Your task to perform on an android device: Search for sushi restaurants on Maps Image 0: 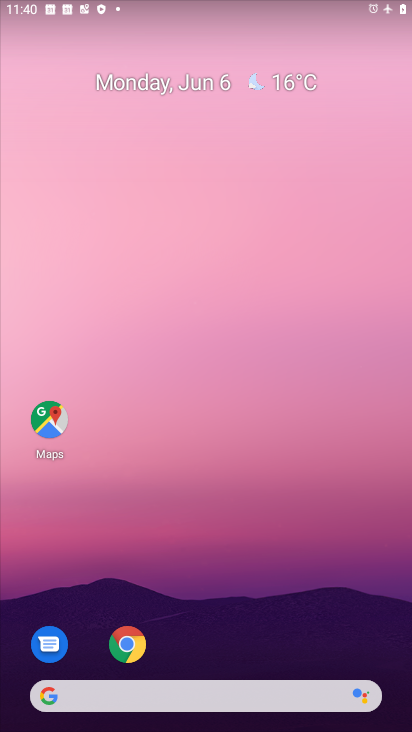
Step 0: drag from (269, 615) to (267, 122)
Your task to perform on an android device: Search for sushi restaurants on Maps Image 1: 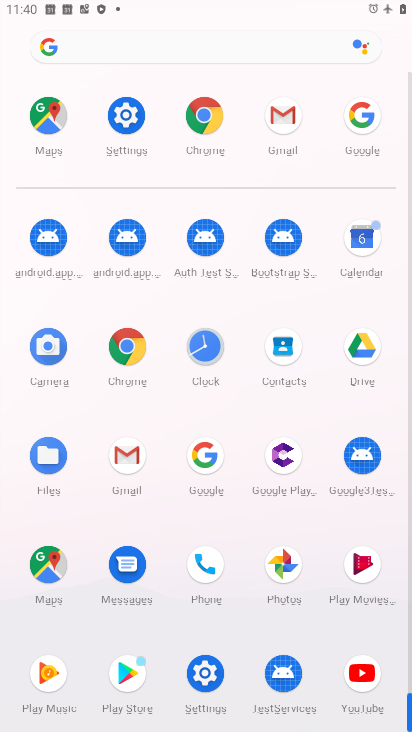
Step 1: click (58, 580)
Your task to perform on an android device: Search for sushi restaurants on Maps Image 2: 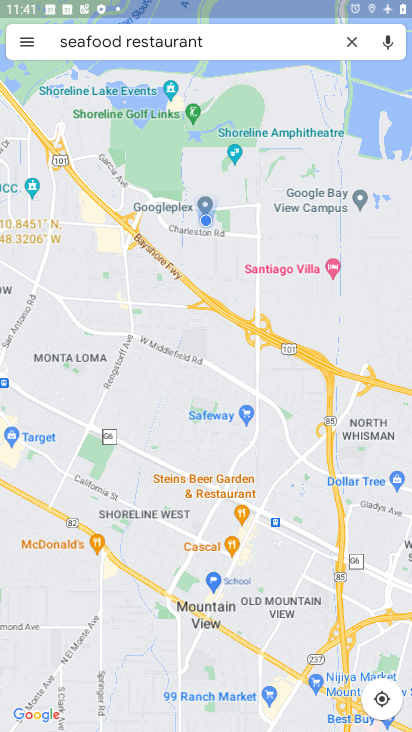
Step 2: task complete